Your task to perform on an android device: Show the shopping cart on ebay. Image 0: 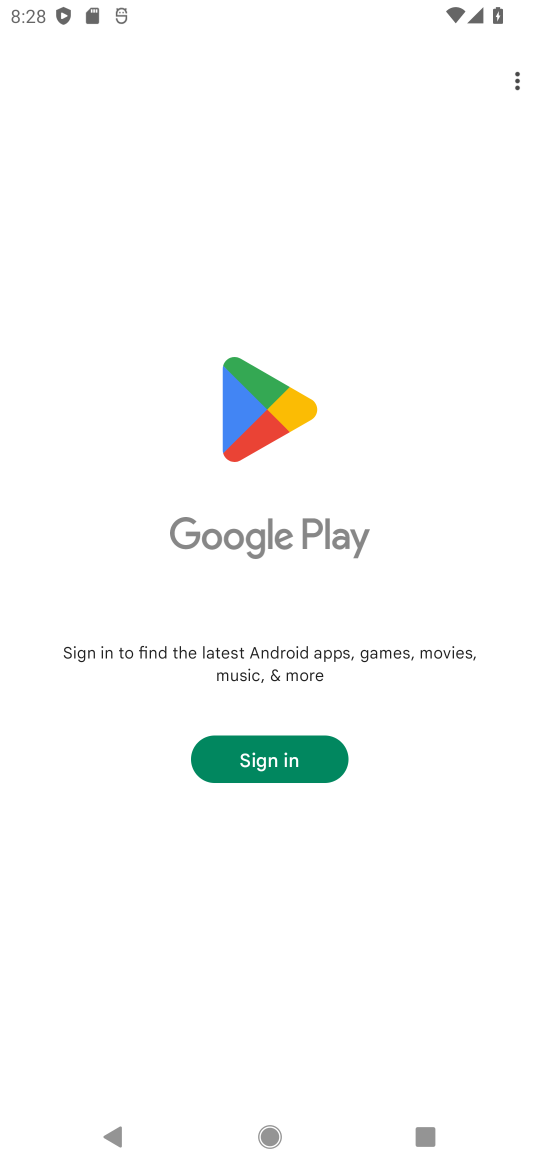
Step 0: press home button
Your task to perform on an android device: Show the shopping cart on ebay. Image 1: 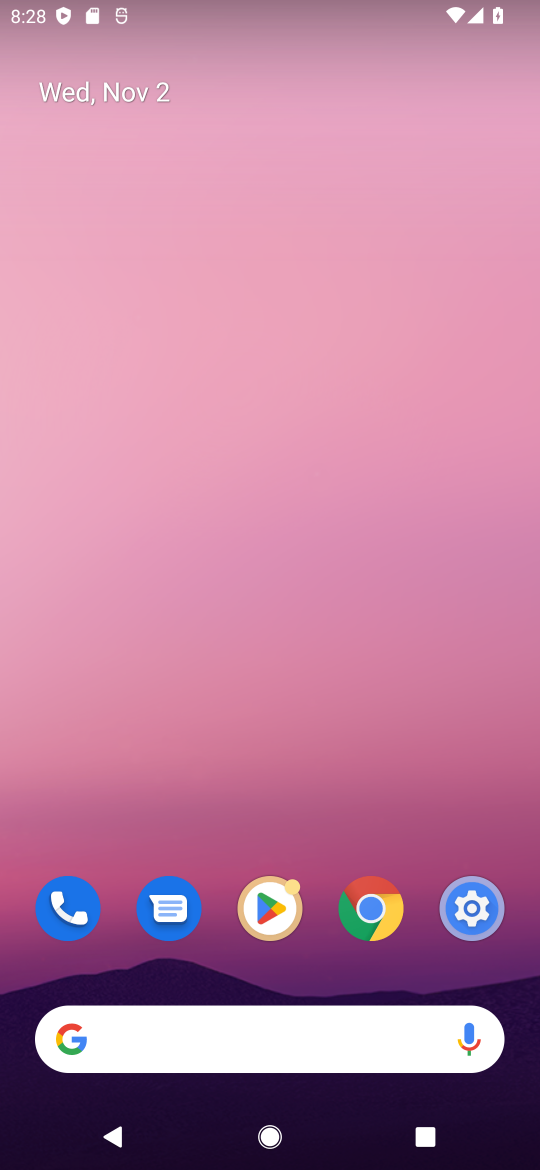
Step 1: click (220, 1027)
Your task to perform on an android device: Show the shopping cart on ebay. Image 2: 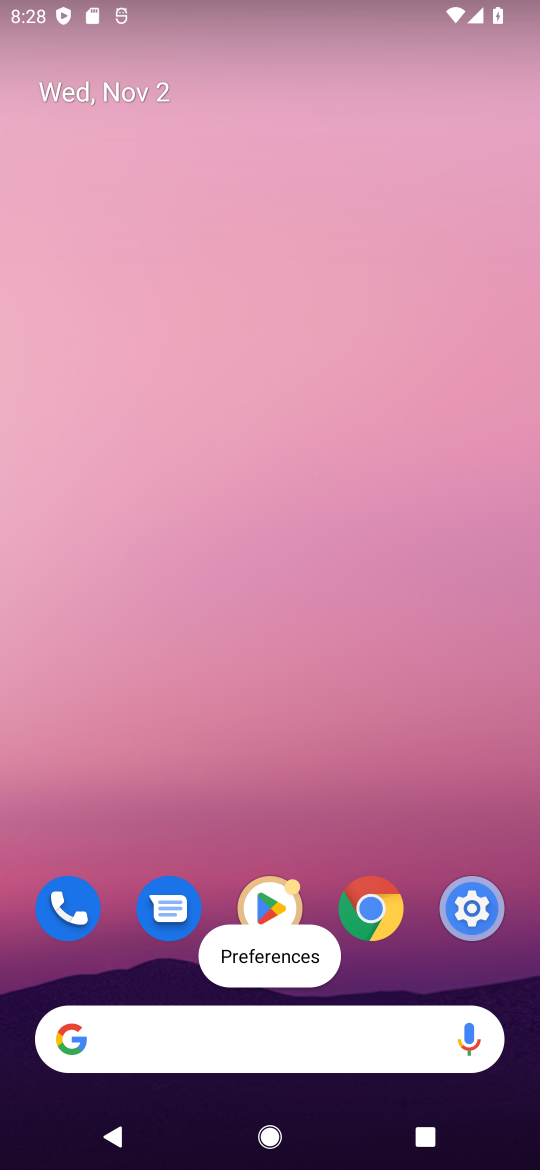
Step 2: click (220, 1027)
Your task to perform on an android device: Show the shopping cart on ebay. Image 3: 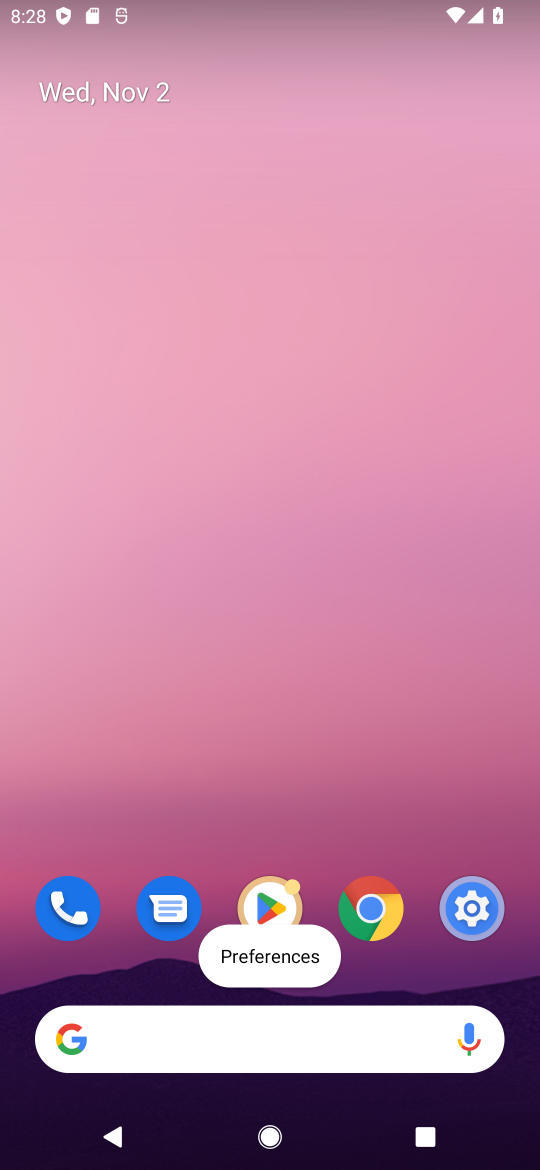
Step 3: click (220, 1027)
Your task to perform on an android device: Show the shopping cart on ebay. Image 4: 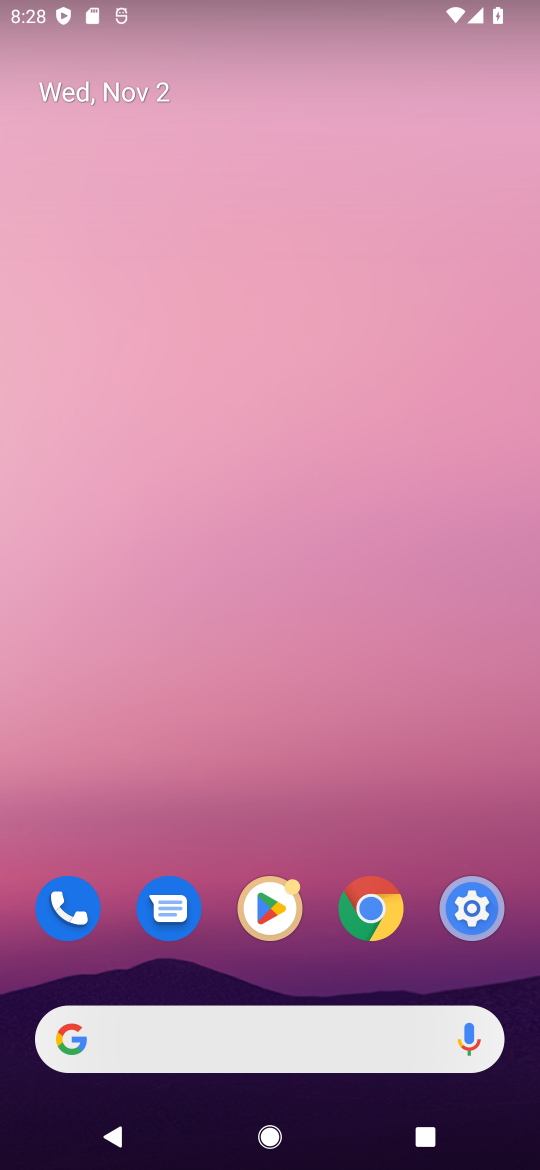
Step 4: click (220, 1027)
Your task to perform on an android device: Show the shopping cart on ebay. Image 5: 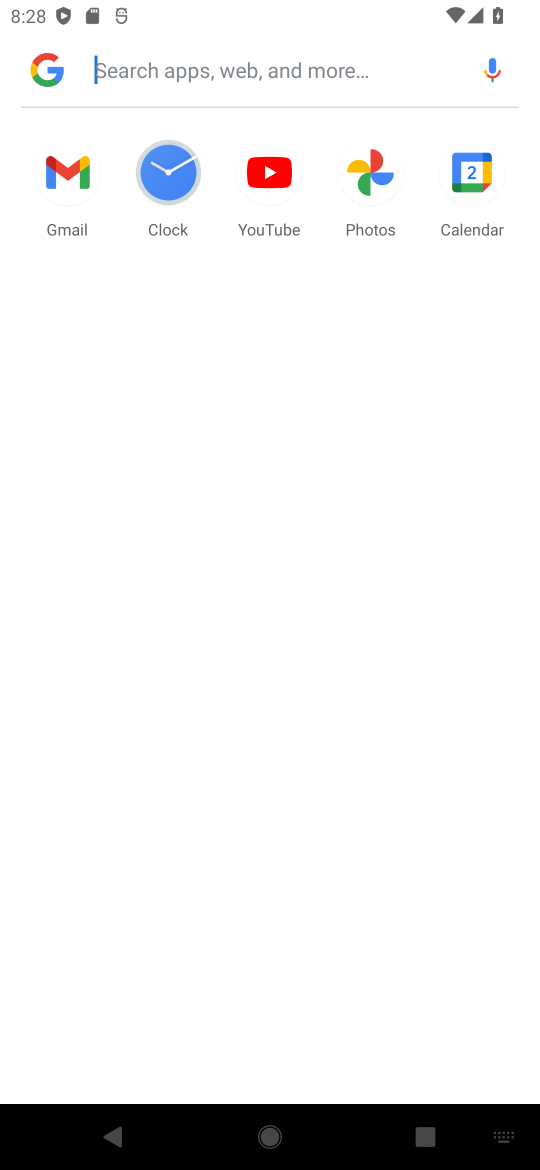
Step 5: type "ebay"
Your task to perform on an android device: Show the shopping cart on ebay. Image 6: 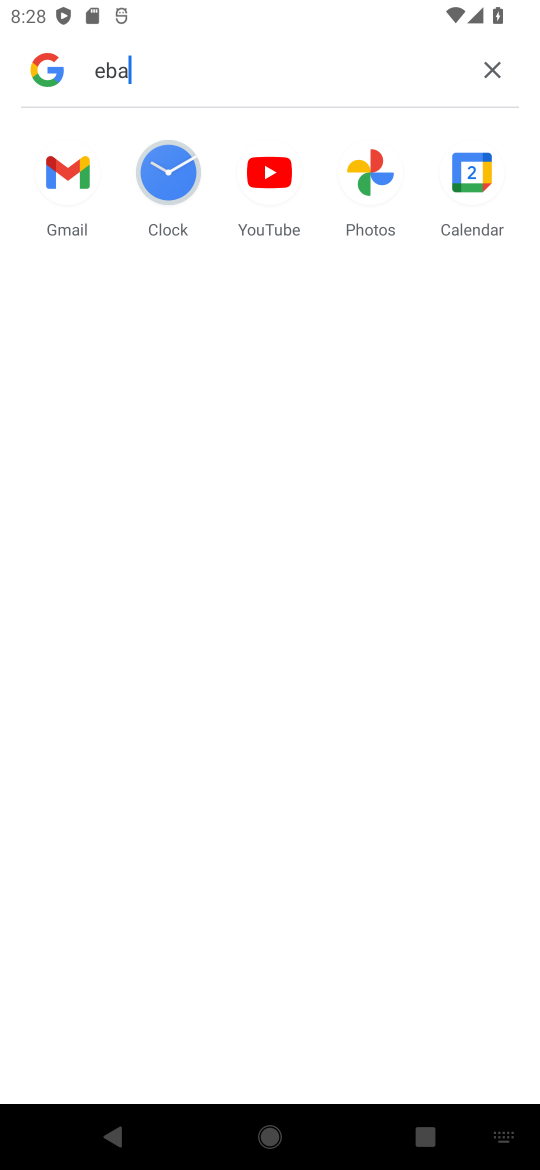
Step 6: type ""
Your task to perform on an android device: Show the shopping cart on ebay. Image 7: 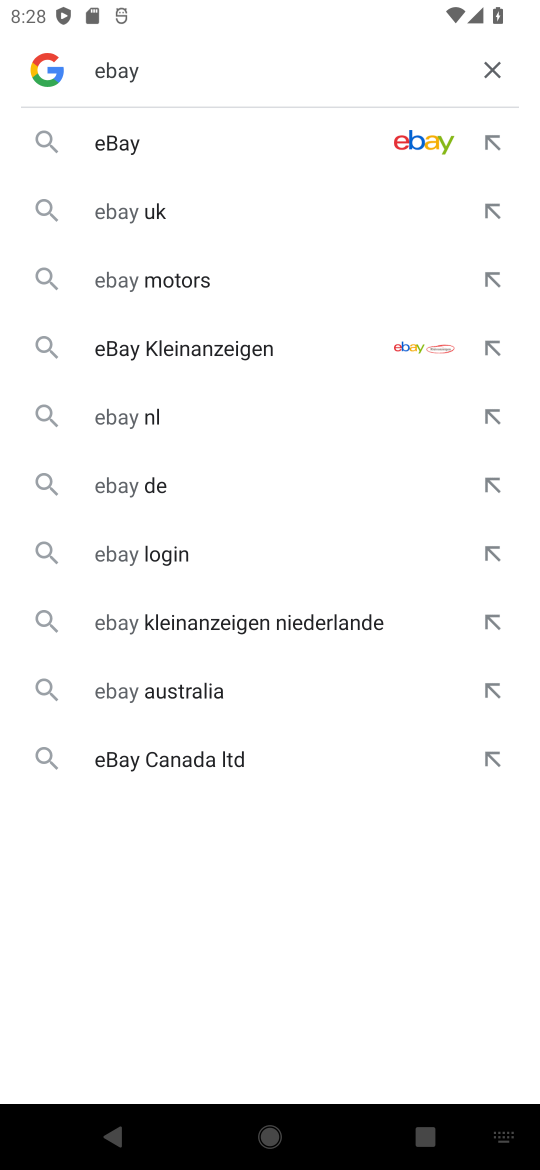
Step 7: press enter
Your task to perform on an android device: Show the shopping cart on ebay. Image 8: 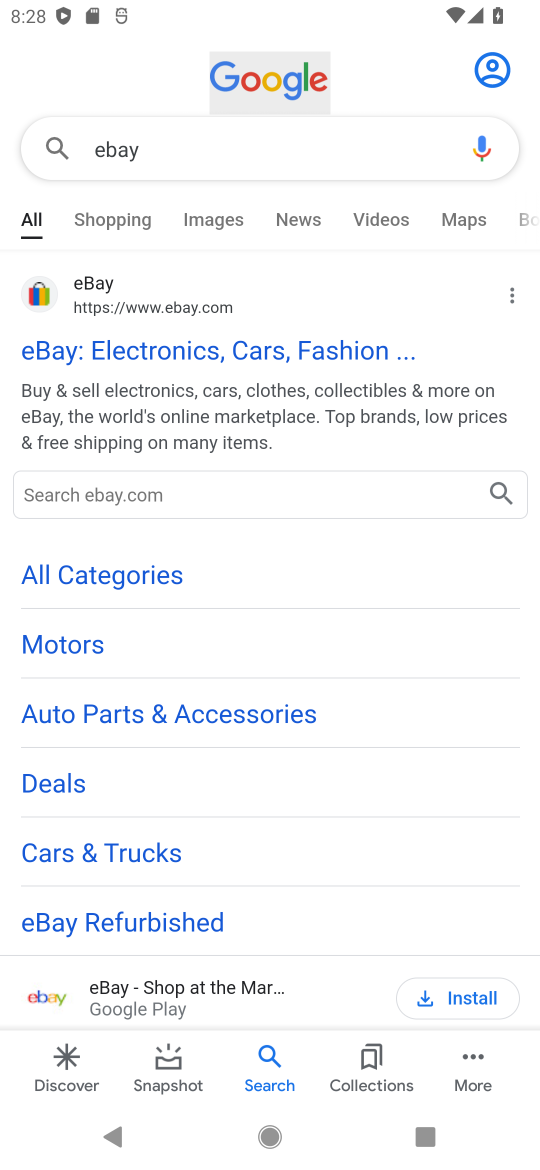
Step 8: click (181, 312)
Your task to perform on an android device: Show the shopping cart on ebay. Image 9: 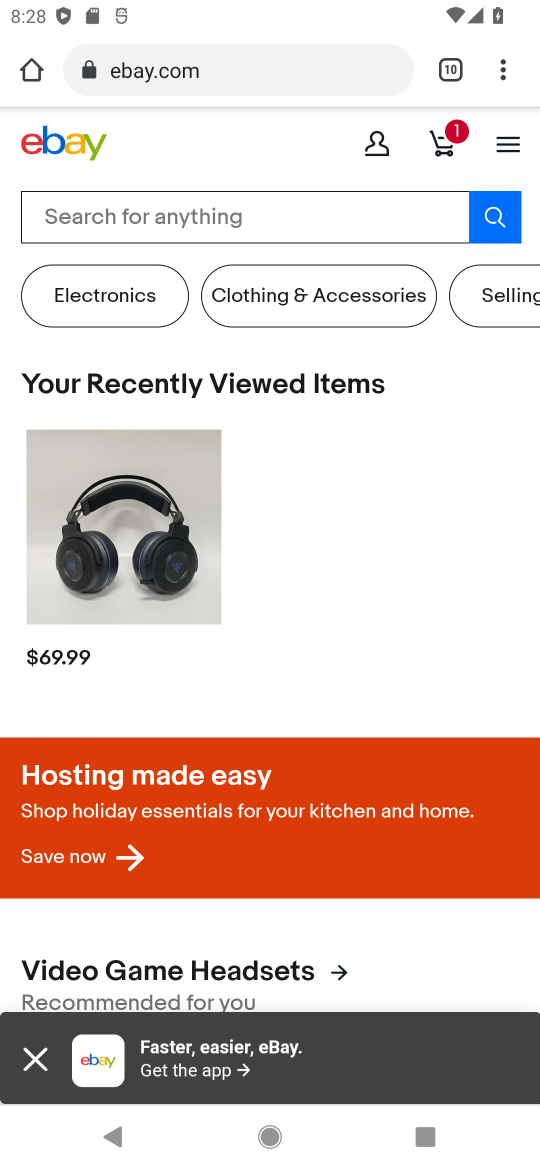
Step 9: click (447, 156)
Your task to perform on an android device: Show the shopping cart on ebay. Image 10: 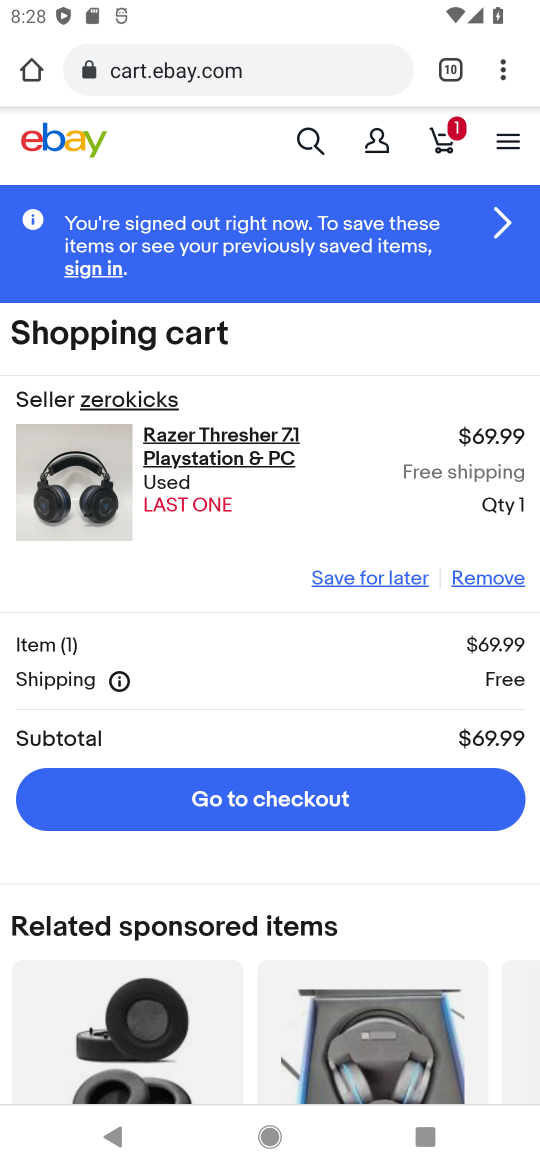
Step 10: task complete